Your task to perform on an android device: Go to accessibility settings Image 0: 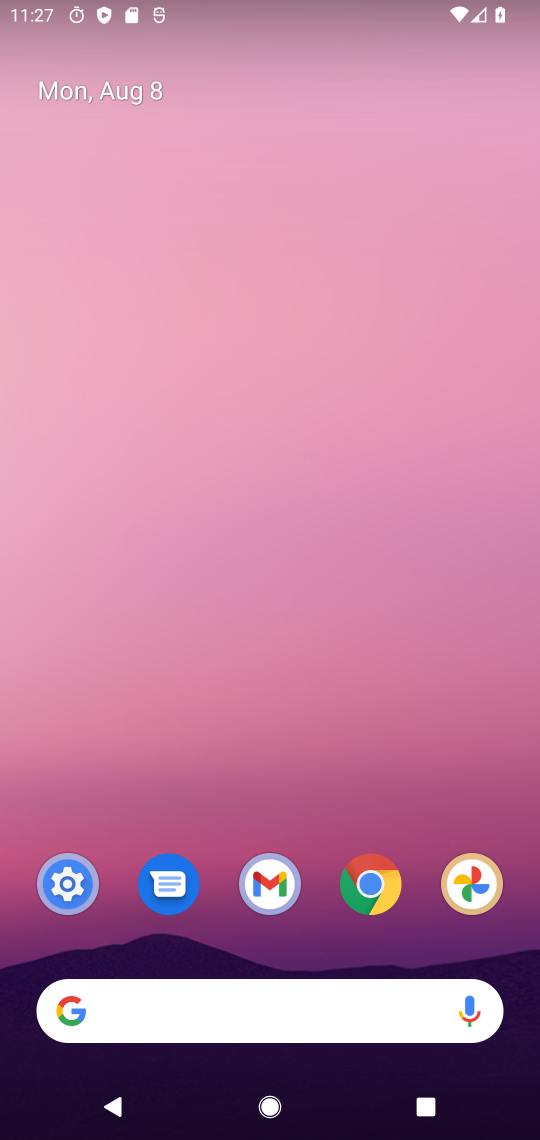
Step 0: click (77, 890)
Your task to perform on an android device: Go to accessibility settings Image 1: 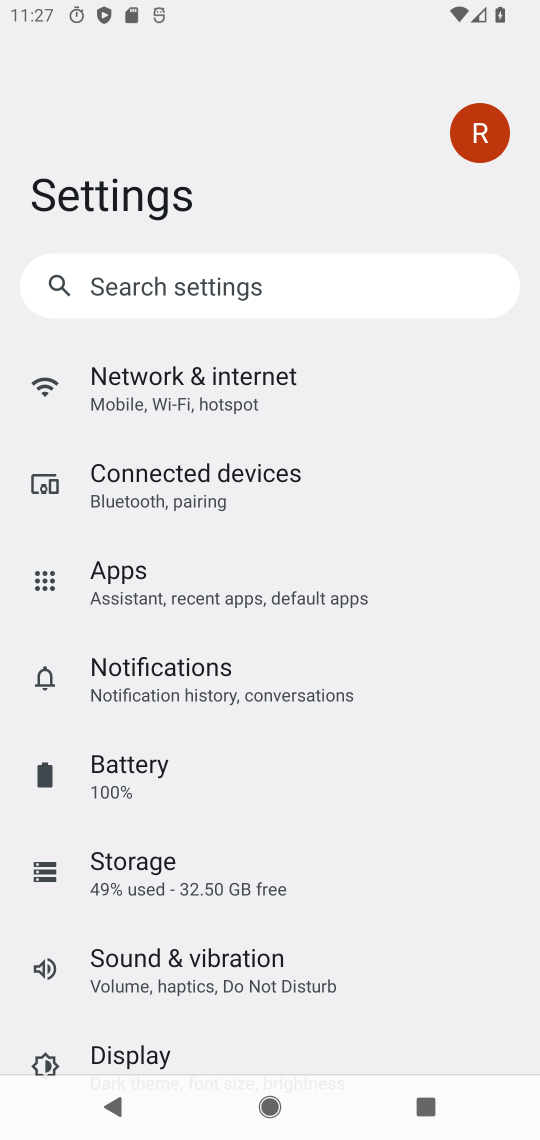
Step 1: drag from (232, 766) to (278, 129)
Your task to perform on an android device: Go to accessibility settings Image 2: 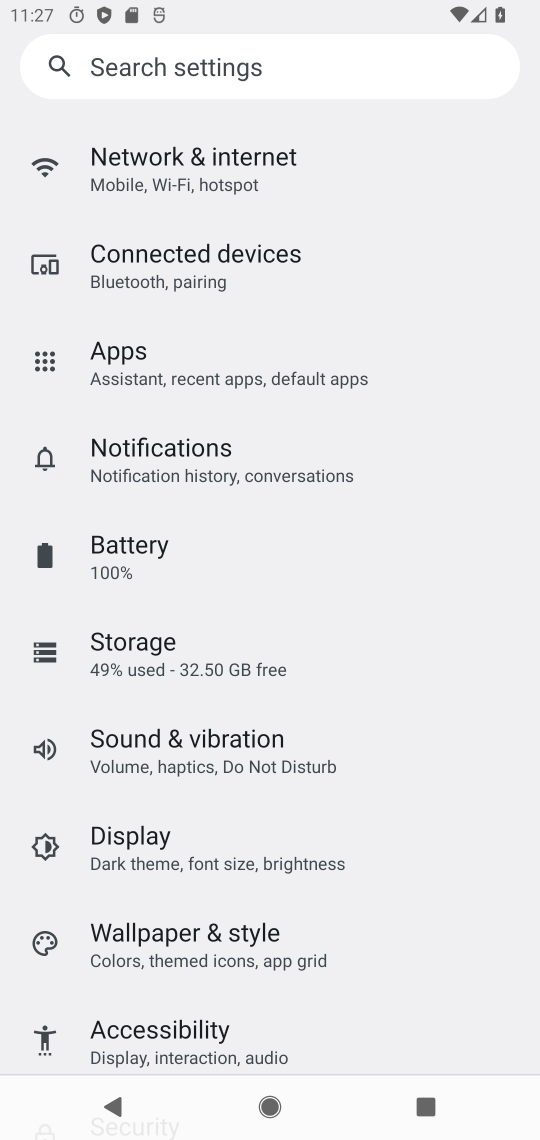
Step 2: click (157, 1027)
Your task to perform on an android device: Go to accessibility settings Image 3: 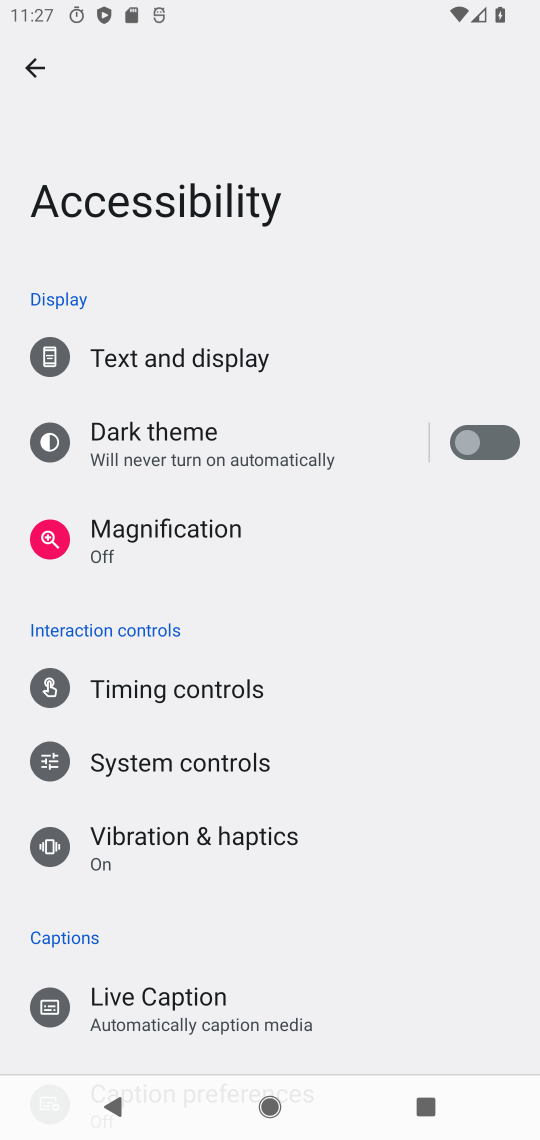
Step 3: task complete